Your task to perform on an android device: See recent photos Image 0: 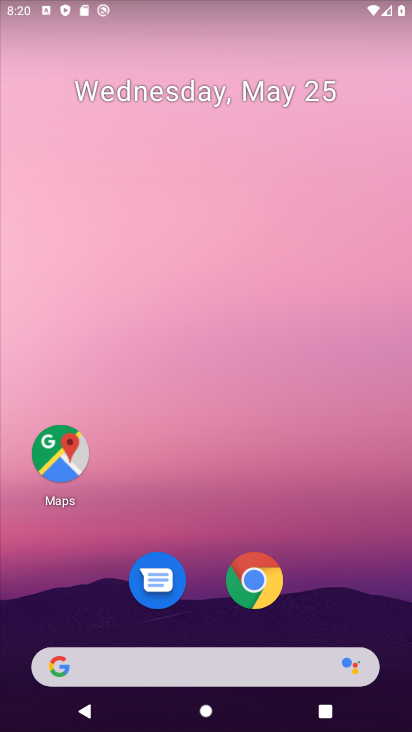
Step 0: drag from (53, 488) to (207, 202)
Your task to perform on an android device: See recent photos Image 1: 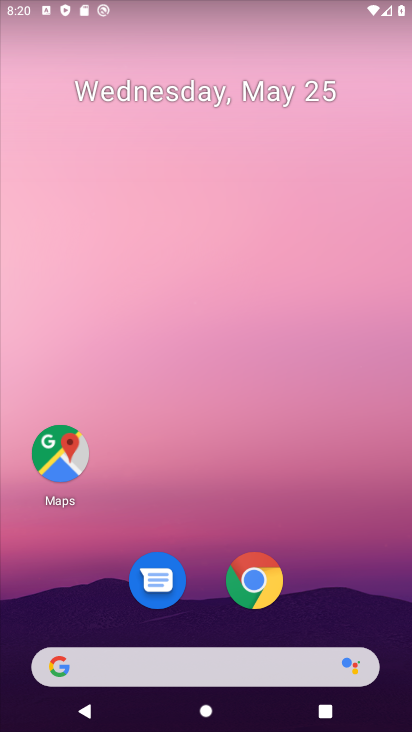
Step 1: drag from (12, 577) to (191, 151)
Your task to perform on an android device: See recent photos Image 2: 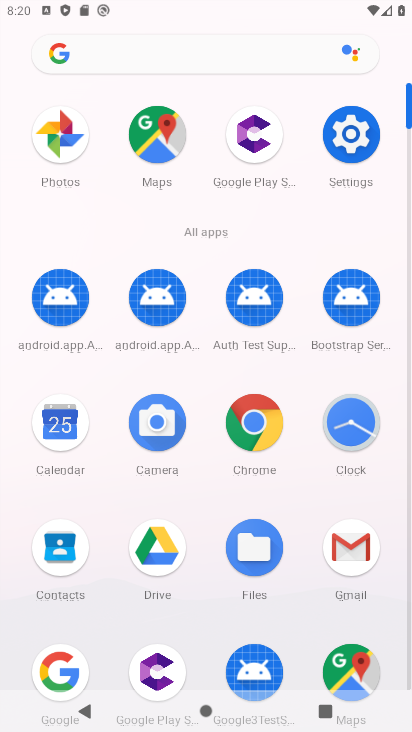
Step 2: click (70, 126)
Your task to perform on an android device: See recent photos Image 3: 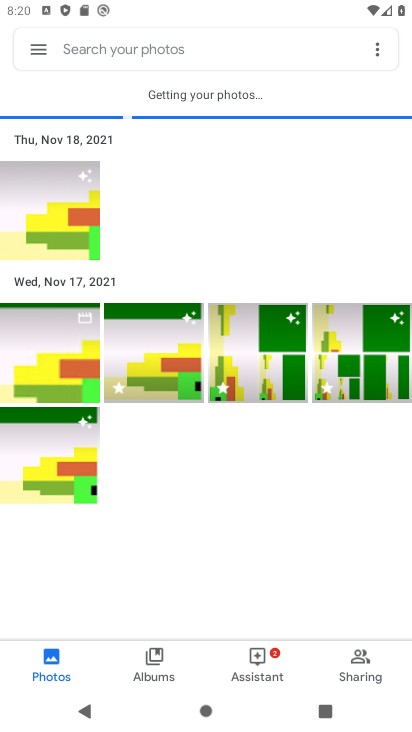
Step 3: task complete